Your task to perform on an android device: delete location history Image 0: 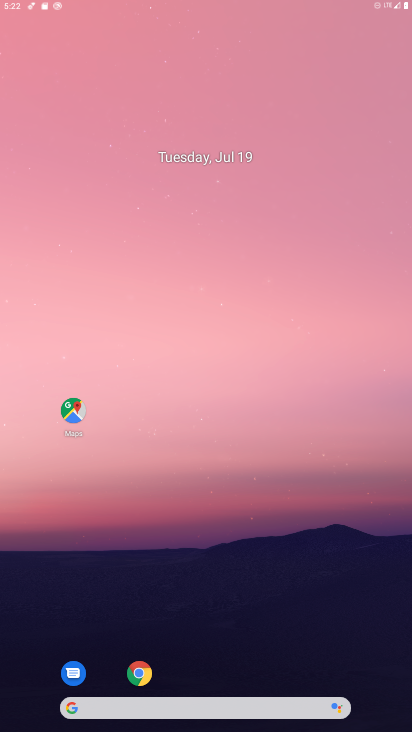
Step 0: press home button
Your task to perform on an android device: delete location history Image 1: 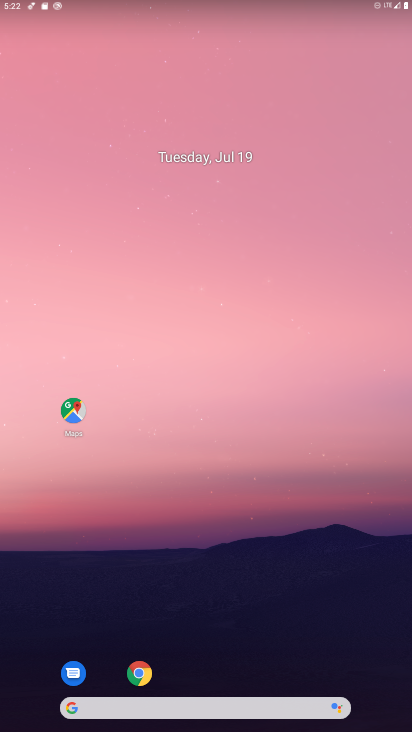
Step 1: click (67, 406)
Your task to perform on an android device: delete location history Image 2: 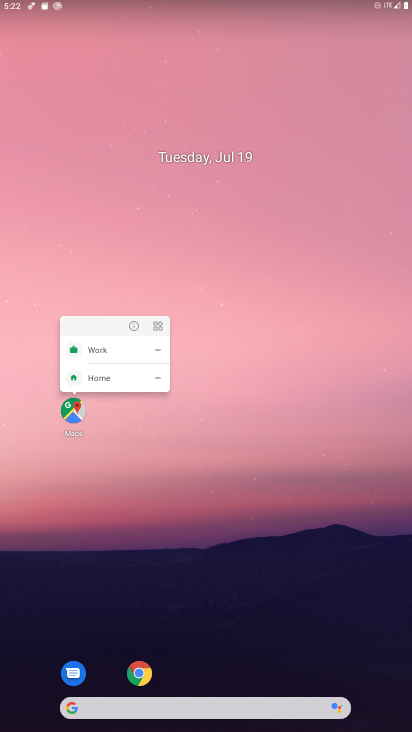
Step 2: click (68, 412)
Your task to perform on an android device: delete location history Image 3: 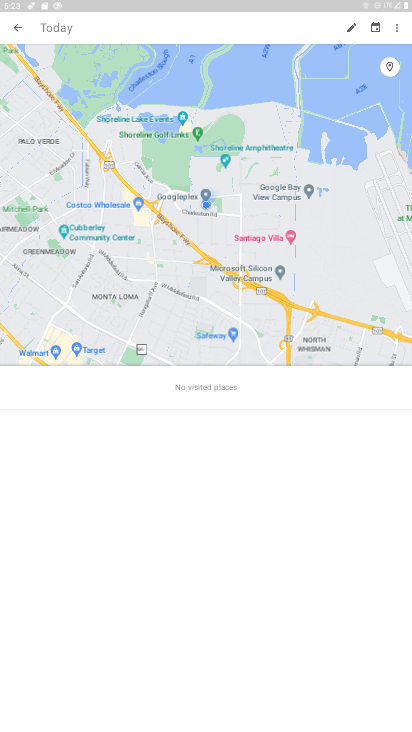
Step 3: click (396, 29)
Your task to perform on an android device: delete location history Image 4: 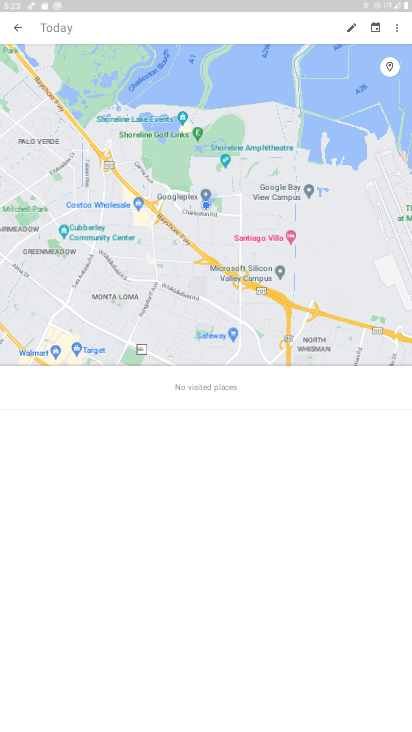
Step 4: click (395, 25)
Your task to perform on an android device: delete location history Image 5: 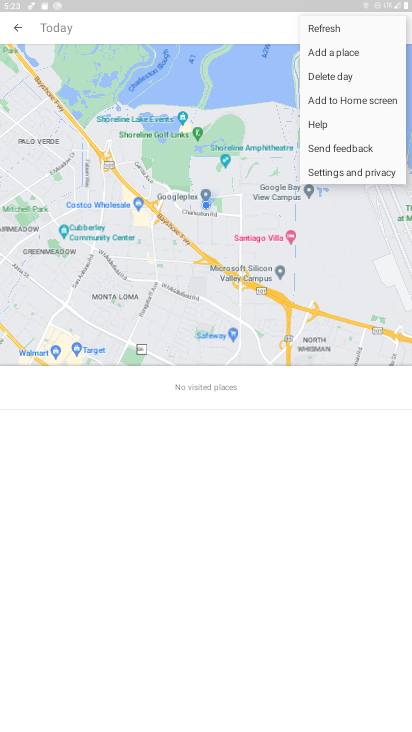
Step 5: click (352, 169)
Your task to perform on an android device: delete location history Image 6: 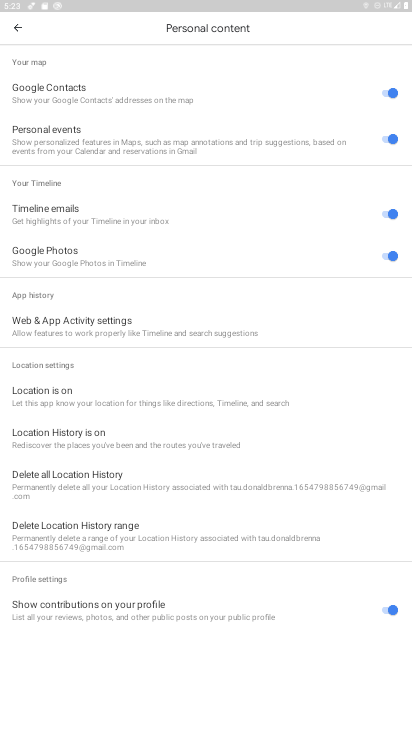
Step 6: click (100, 484)
Your task to perform on an android device: delete location history Image 7: 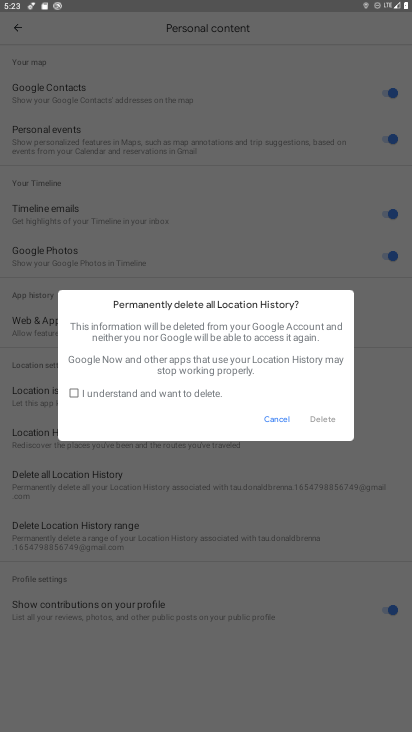
Step 7: click (75, 393)
Your task to perform on an android device: delete location history Image 8: 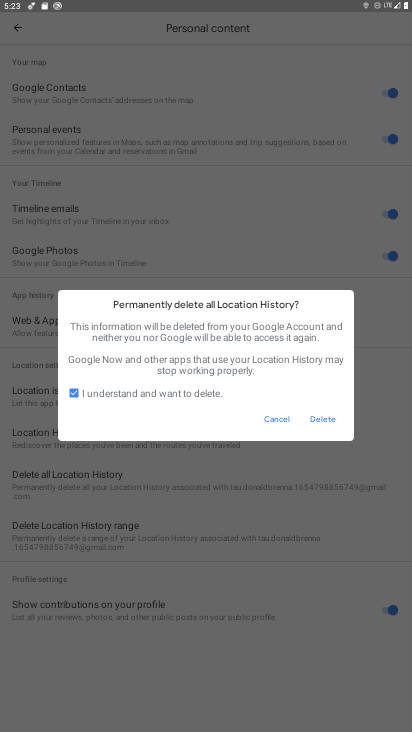
Step 8: click (325, 422)
Your task to perform on an android device: delete location history Image 9: 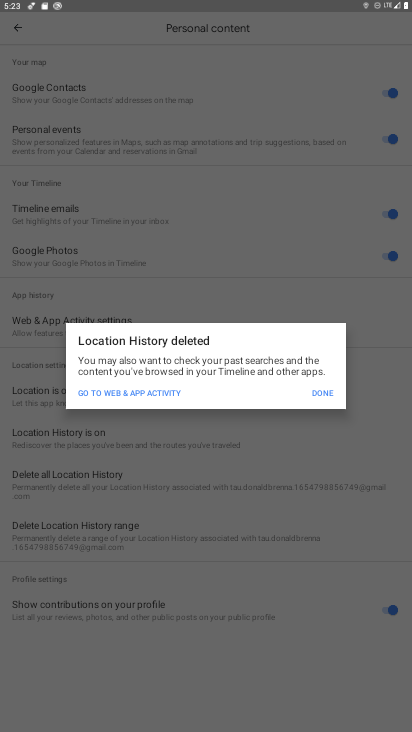
Step 9: task complete